Your task to perform on an android device: turn off priority inbox in the gmail app Image 0: 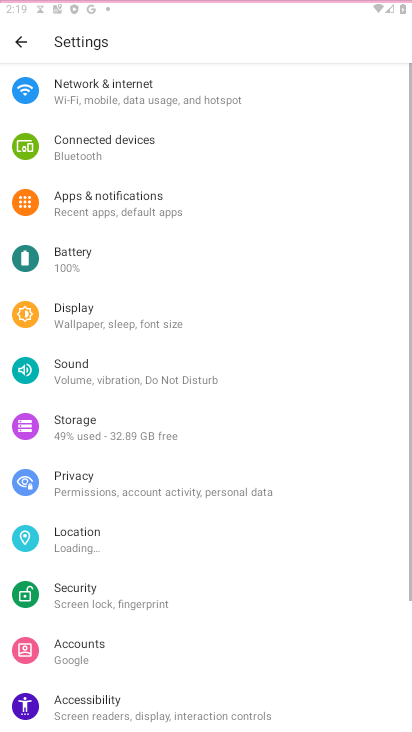
Step 0: press home button
Your task to perform on an android device: turn off priority inbox in the gmail app Image 1: 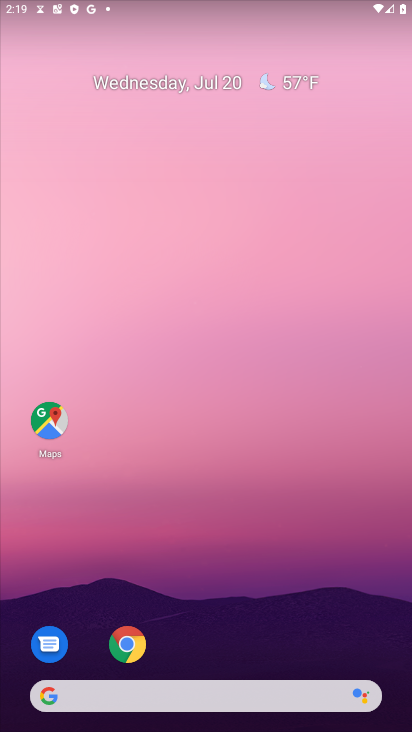
Step 1: drag from (252, 637) to (336, 37)
Your task to perform on an android device: turn off priority inbox in the gmail app Image 2: 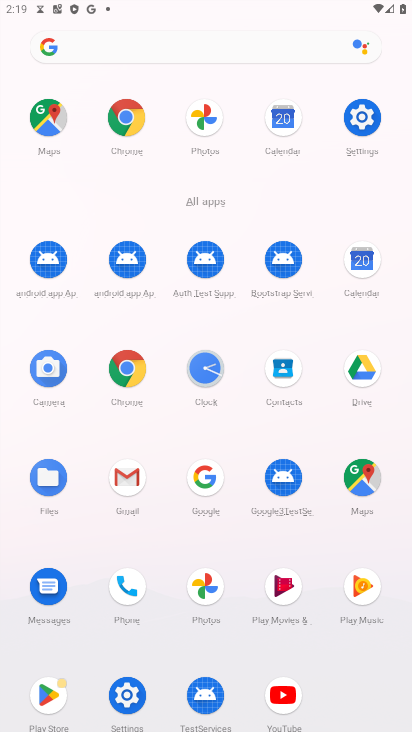
Step 2: click (124, 473)
Your task to perform on an android device: turn off priority inbox in the gmail app Image 3: 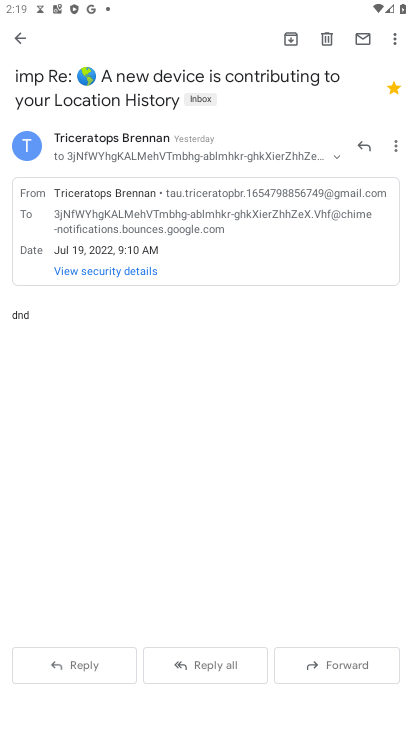
Step 3: click (19, 48)
Your task to perform on an android device: turn off priority inbox in the gmail app Image 4: 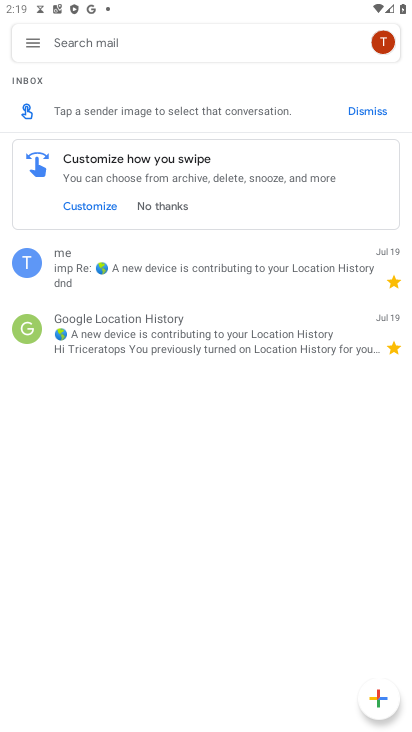
Step 4: click (37, 34)
Your task to perform on an android device: turn off priority inbox in the gmail app Image 5: 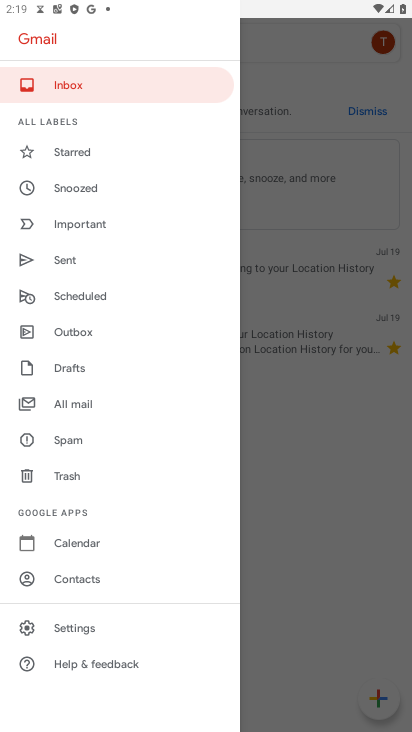
Step 5: click (87, 630)
Your task to perform on an android device: turn off priority inbox in the gmail app Image 6: 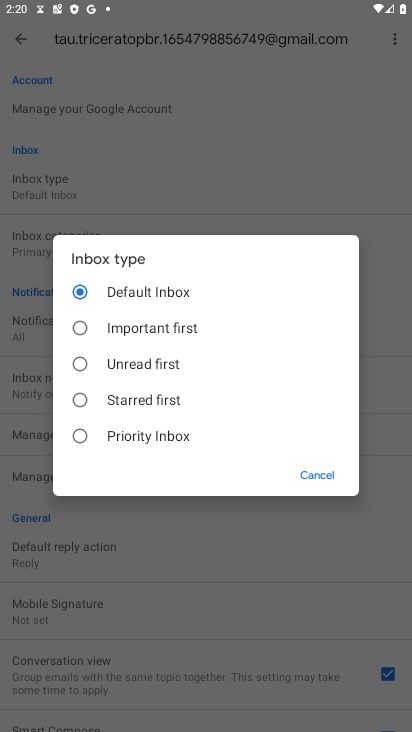
Step 6: task complete